Your task to perform on an android device: Look up the best rated gaming chair on Target. Image 0: 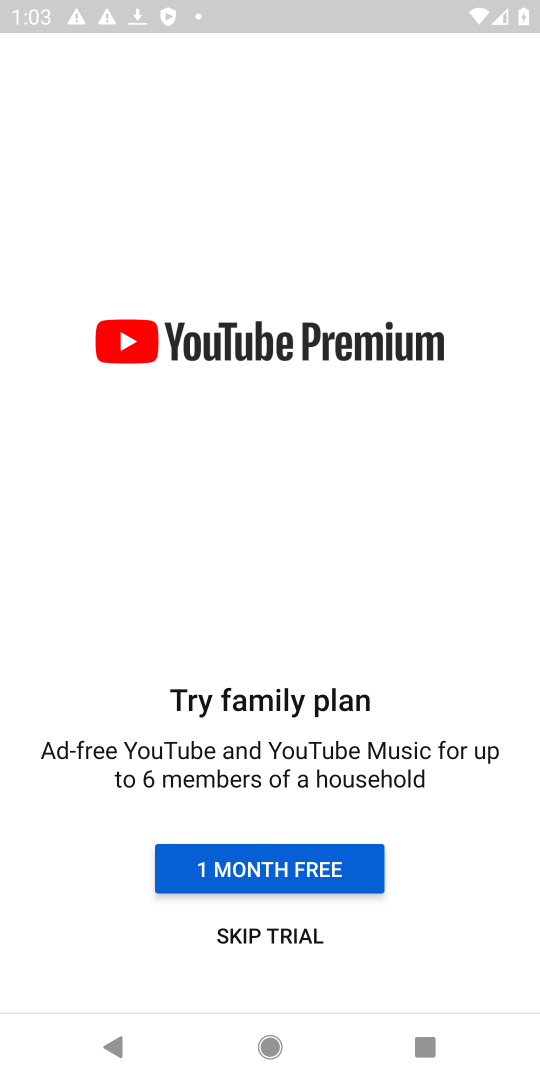
Step 0: press home button
Your task to perform on an android device: Look up the best rated gaming chair on Target. Image 1: 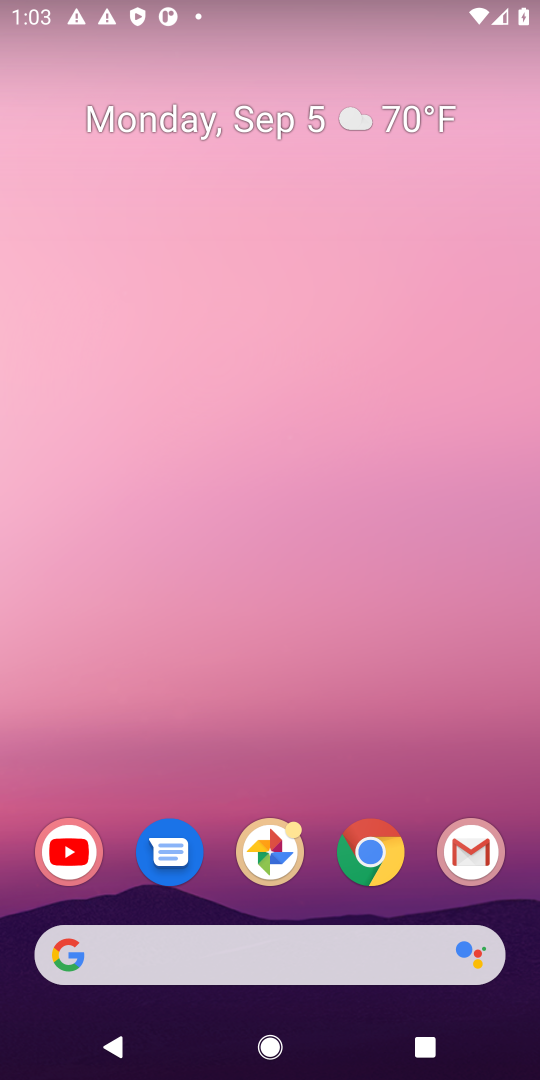
Step 1: click (371, 847)
Your task to perform on an android device: Look up the best rated gaming chair on Target. Image 2: 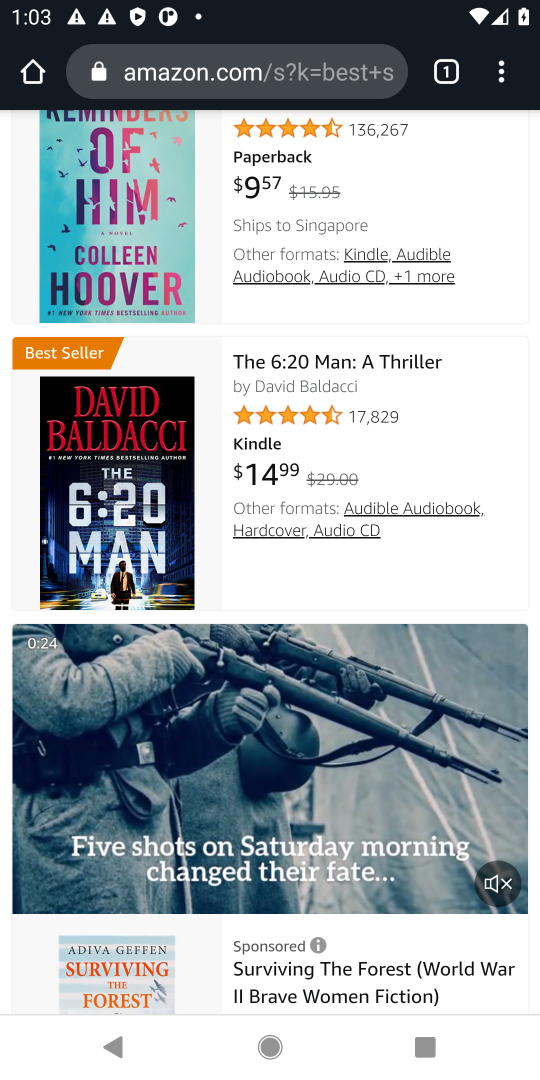
Step 2: click (319, 52)
Your task to perform on an android device: Look up the best rated gaming chair on Target. Image 3: 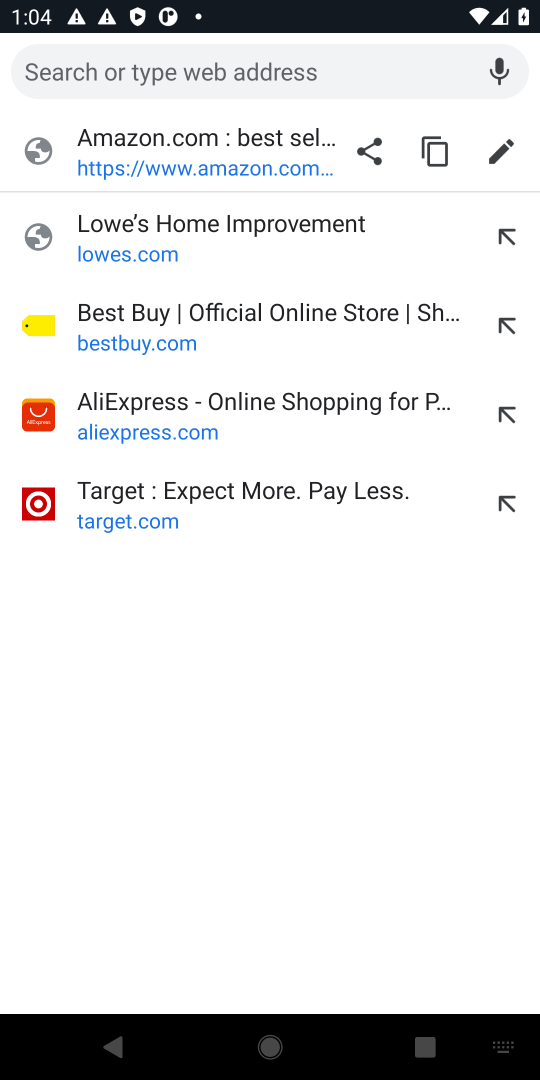
Step 3: click (105, 518)
Your task to perform on an android device: Look up the best rated gaming chair on Target. Image 4: 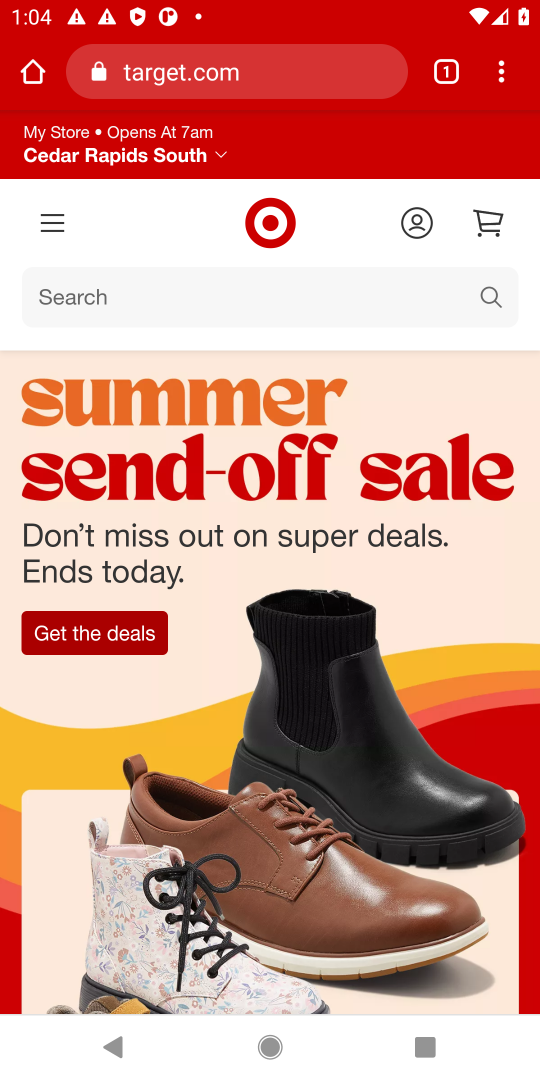
Step 4: click (105, 279)
Your task to perform on an android device: Look up the best rated gaming chair on Target. Image 5: 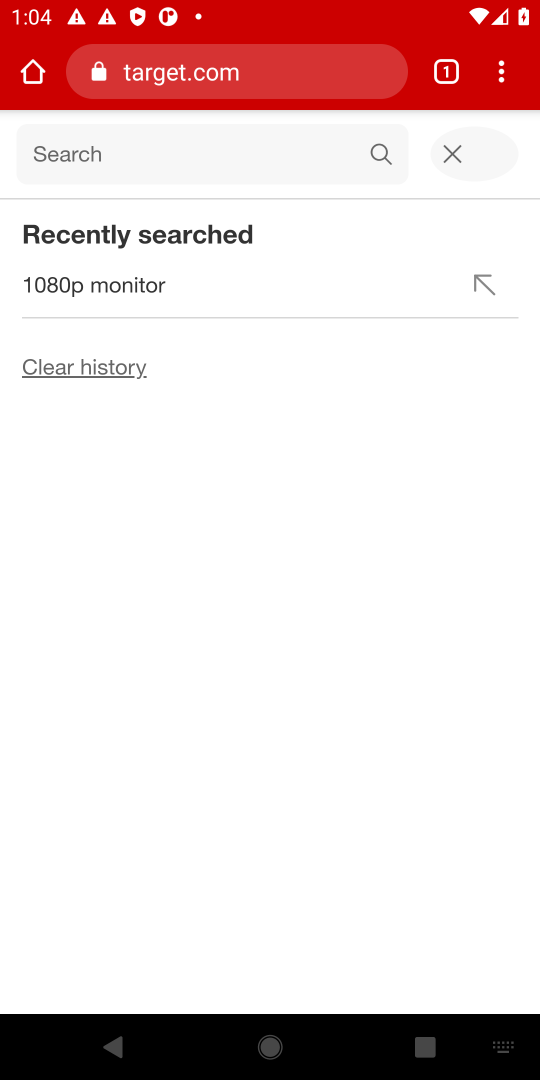
Step 5: type " gaming chair"
Your task to perform on an android device: Look up the best rated gaming chair on Target. Image 6: 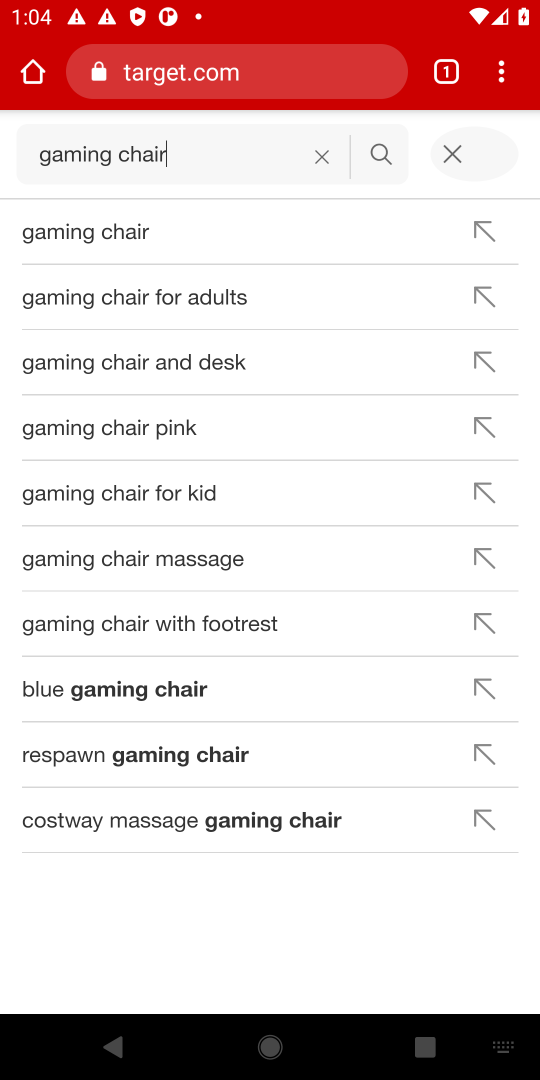
Step 6: click (102, 235)
Your task to perform on an android device: Look up the best rated gaming chair on Target. Image 7: 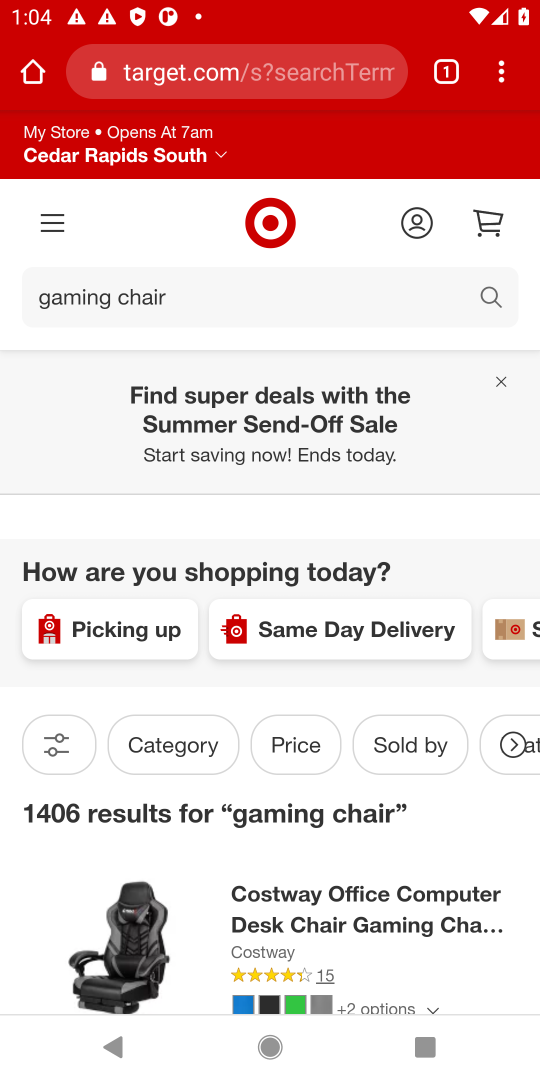
Step 7: task complete